Your task to perform on an android device: stop showing notifications on the lock screen Image 0: 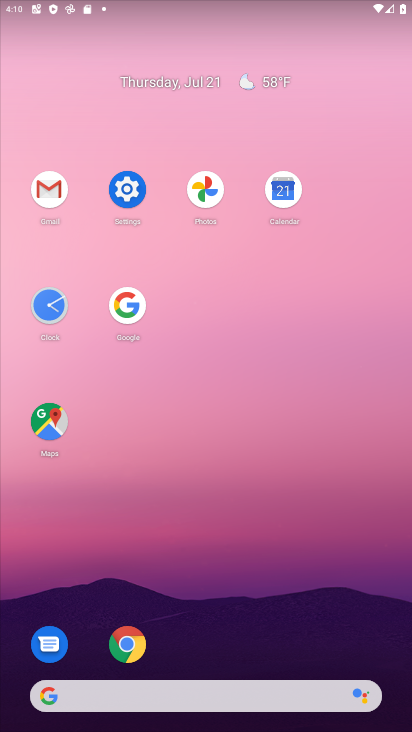
Step 0: click (132, 193)
Your task to perform on an android device: stop showing notifications on the lock screen Image 1: 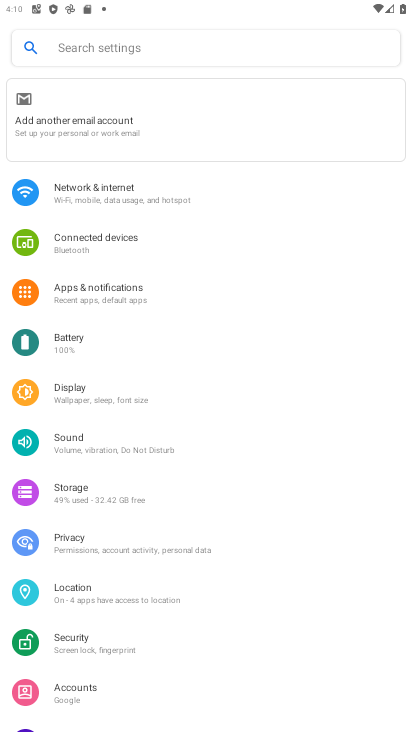
Step 1: click (121, 308)
Your task to perform on an android device: stop showing notifications on the lock screen Image 2: 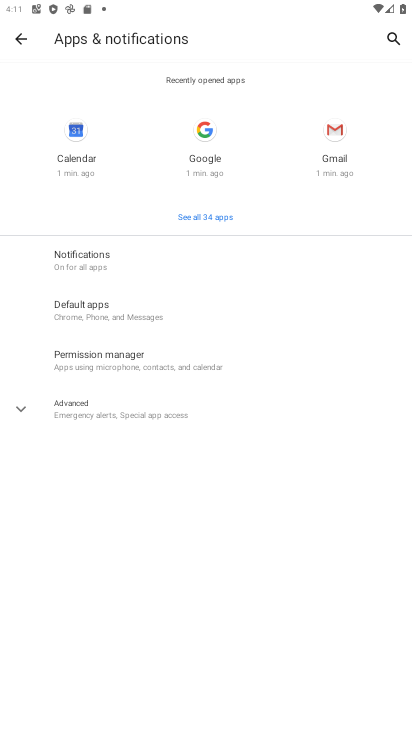
Step 2: click (102, 271)
Your task to perform on an android device: stop showing notifications on the lock screen Image 3: 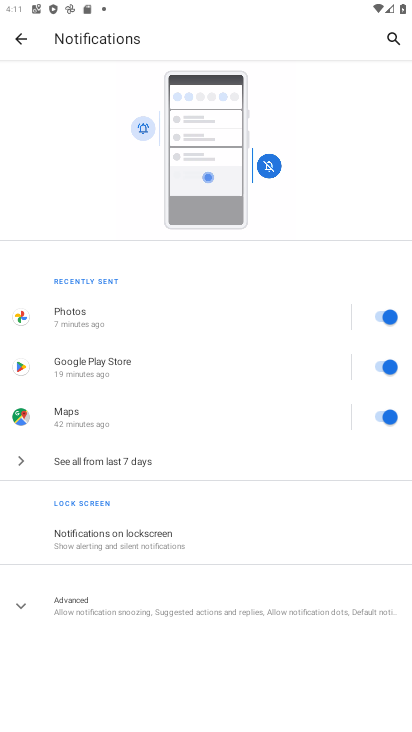
Step 3: click (117, 539)
Your task to perform on an android device: stop showing notifications on the lock screen Image 4: 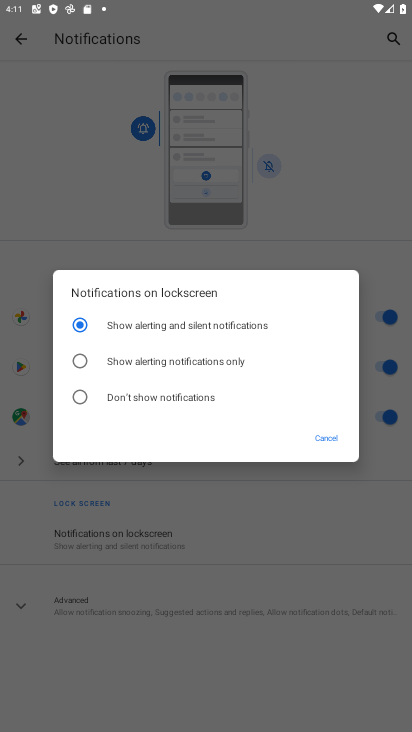
Step 4: click (141, 405)
Your task to perform on an android device: stop showing notifications on the lock screen Image 5: 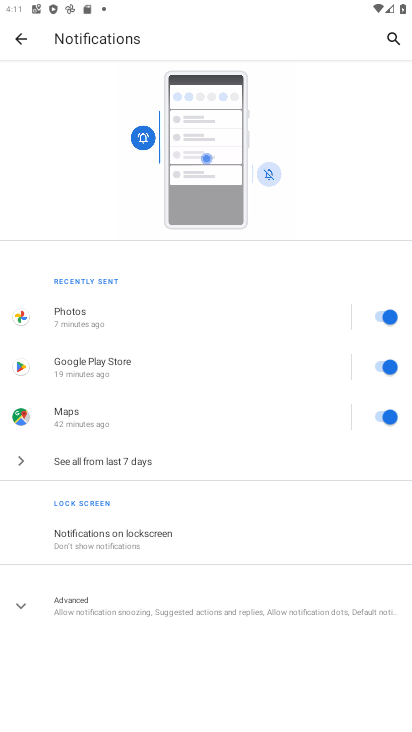
Step 5: task complete